Your task to perform on an android device: Go to location settings Image 0: 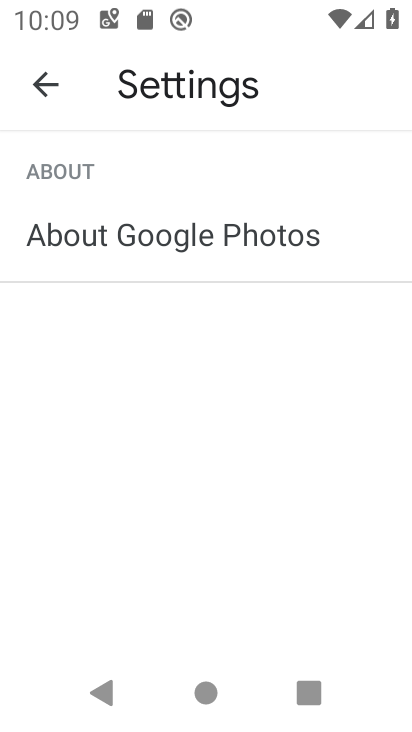
Step 0: press home button
Your task to perform on an android device: Go to location settings Image 1: 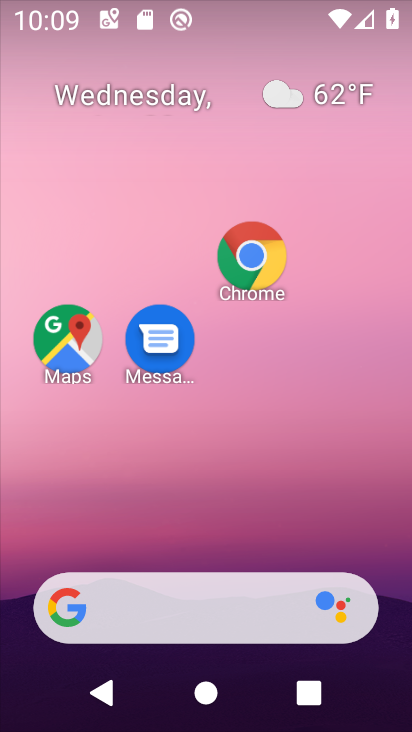
Step 1: drag from (236, 487) to (231, 68)
Your task to perform on an android device: Go to location settings Image 2: 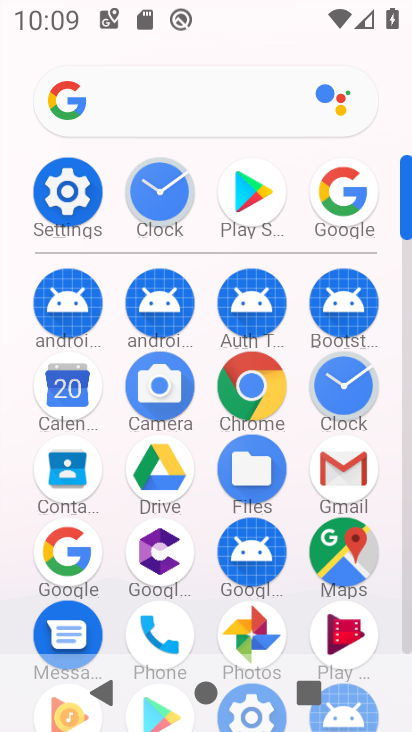
Step 2: click (62, 191)
Your task to perform on an android device: Go to location settings Image 3: 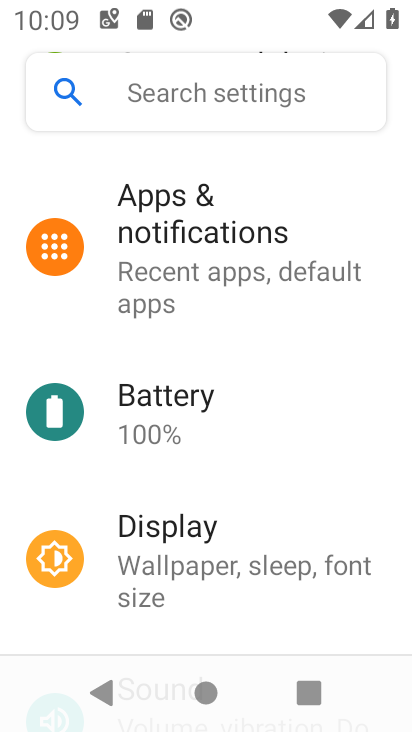
Step 3: drag from (275, 413) to (281, 102)
Your task to perform on an android device: Go to location settings Image 4: 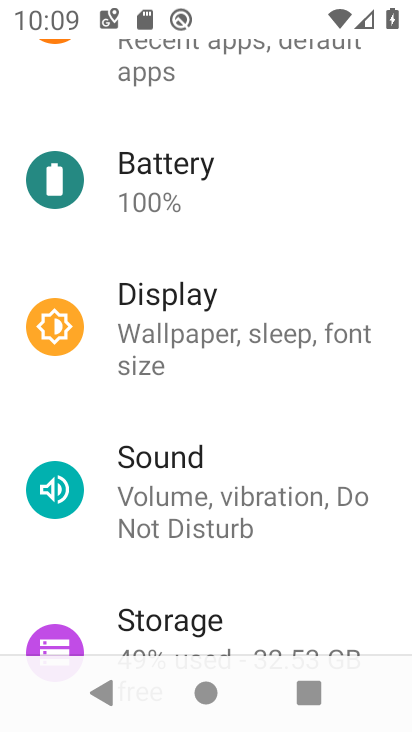
Step 4: drag from (238, 238) to (266, 14)
Your task to perform on an android device: Go to location settings Image 5: 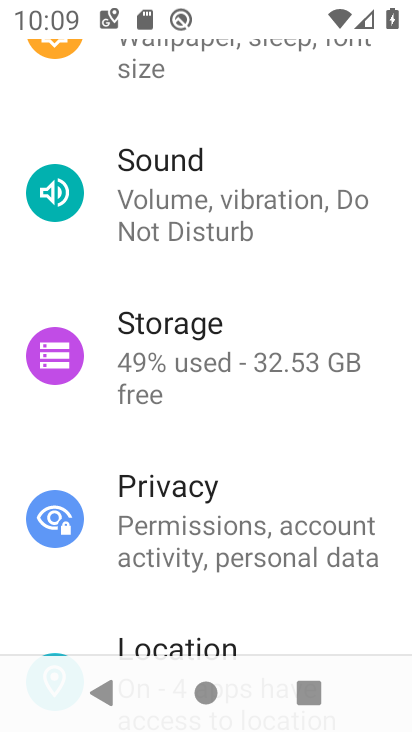
Step 5: click (155, 645)
Your task to perform on an android device: Go to location settings Image 6: 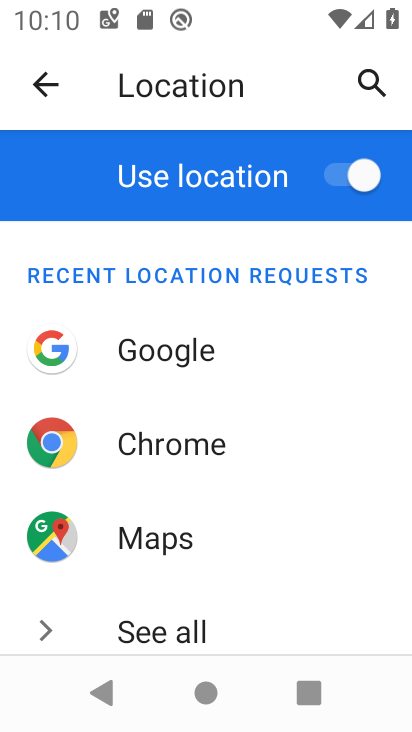
Step 6: task complete